Your task to perform on an android device: Open location settings Image 0: 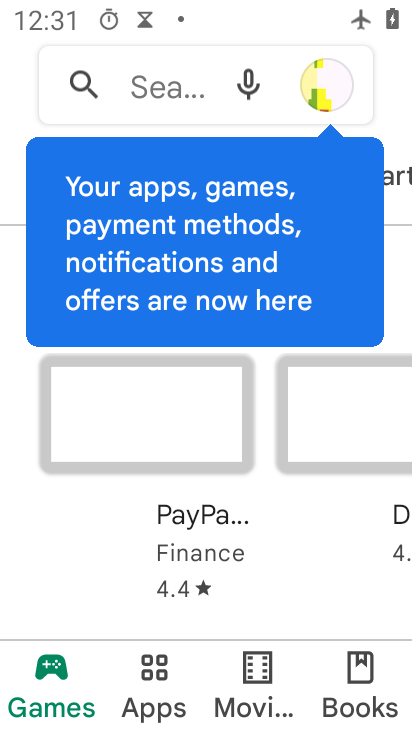
Step 0: press home button
Your task to perform on an android device: Open location settings Image 1: 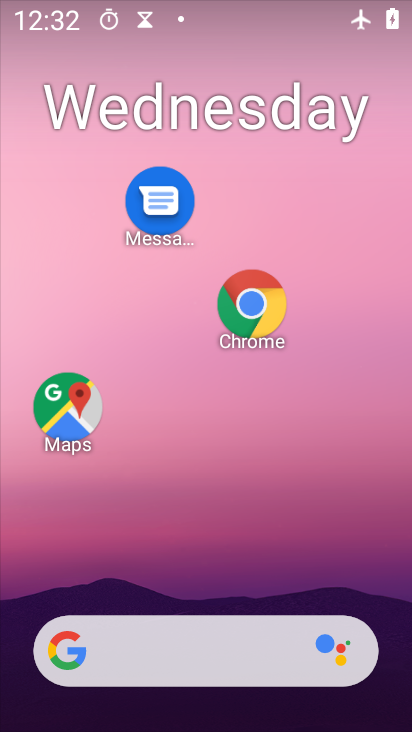
Step 1: drag from (316, 617) to (371, 212)
Your task to perform on an android device: Open location settings Image 2: 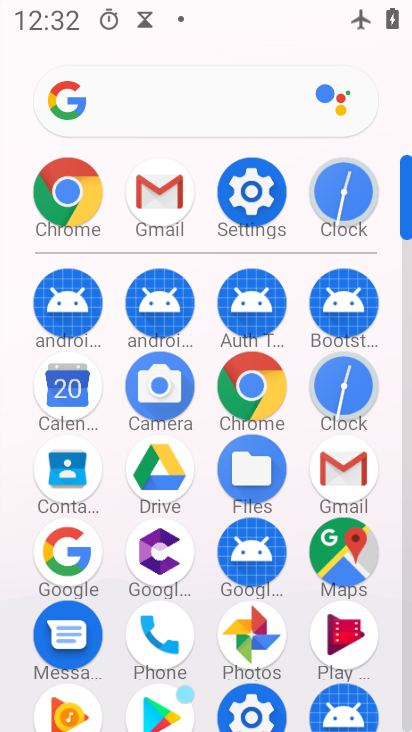
Step 2: click (259, 194)
Your task to perform on an android device: Open location settings Image 3: 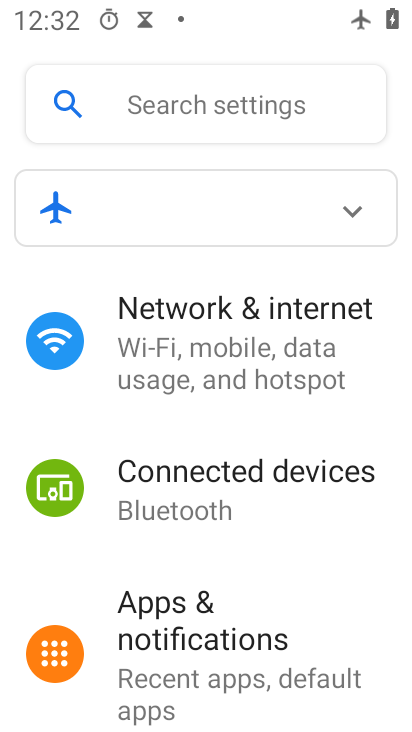
Step 3: drag from (196, 571) to (258, 155)
Your task to perform on an android device: Open location settings Image 4: 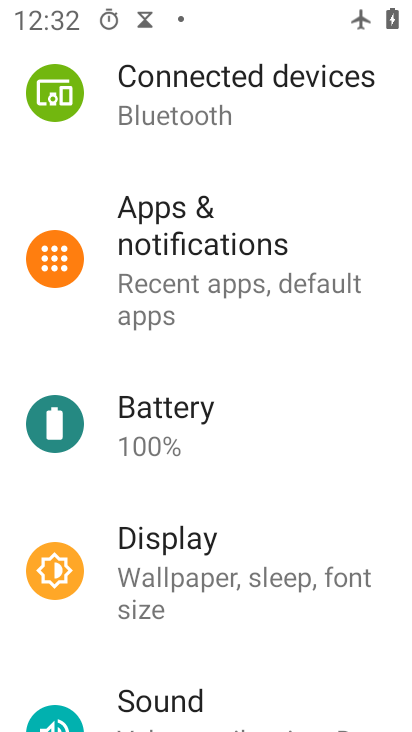
Step 4: drag from (245, 535) to (325, 150)
Your task to perform on an android device: Open location settings Image 5: 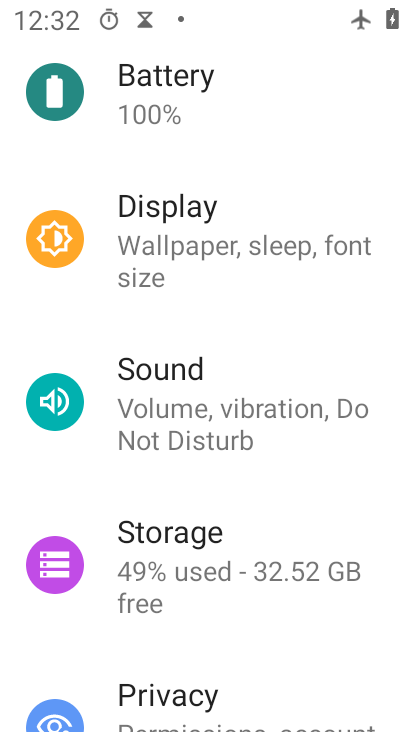
Step 5: drag from (280, 597) to (338, 160)
Your task to perform on an android device: Open location settings Image 6: 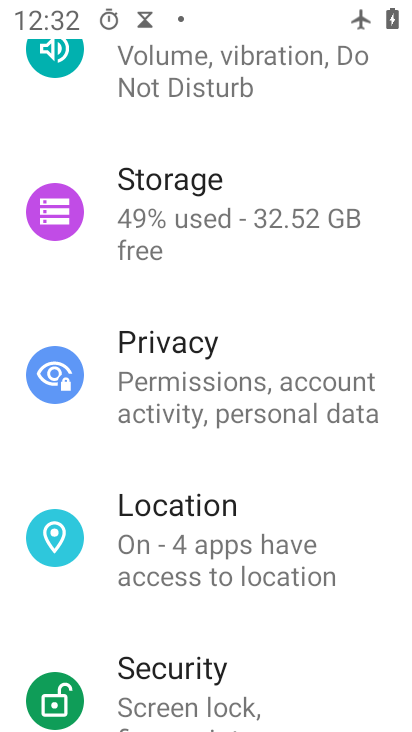
Step 6: click (221, 506)
Your task to perform on an android device: Open location settings Image 7: 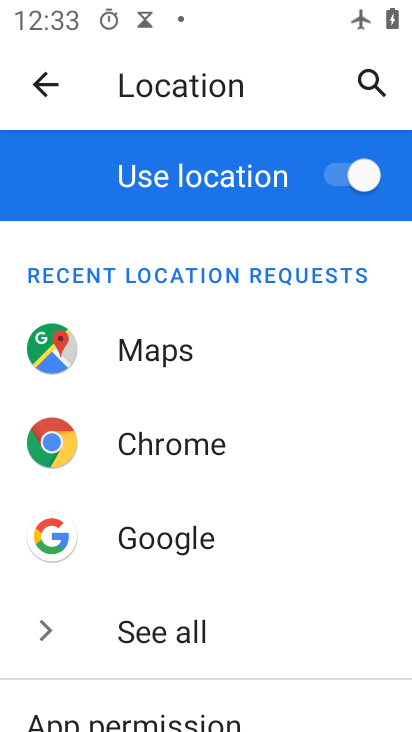
Step 7: task complete